Your task to perform on an android device: all mails in gmail Image 0: 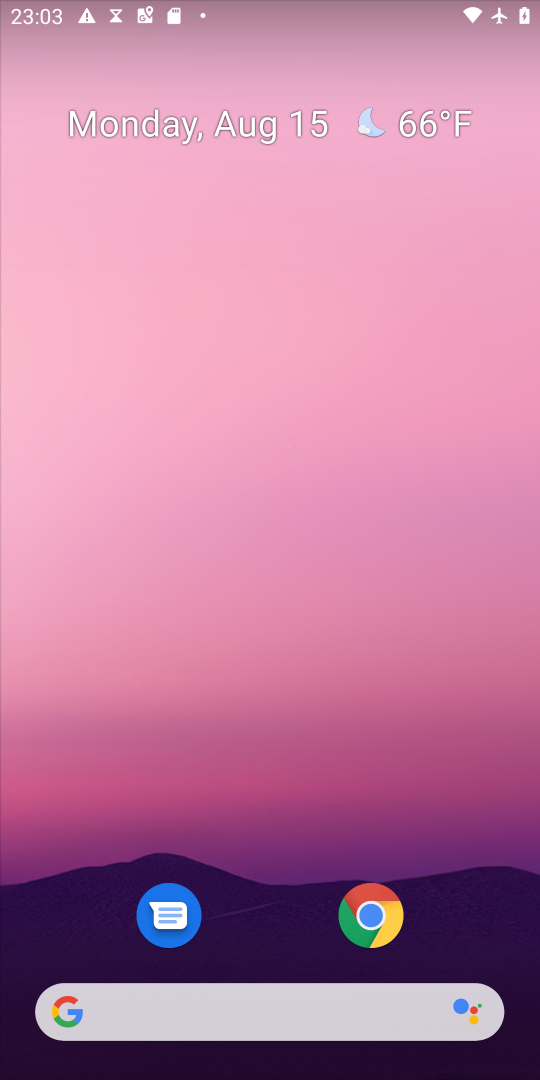
Step 0: drag from (266, 931) to (370, 7)
Your task to perform on an android device: all mails in gmail Image 1: 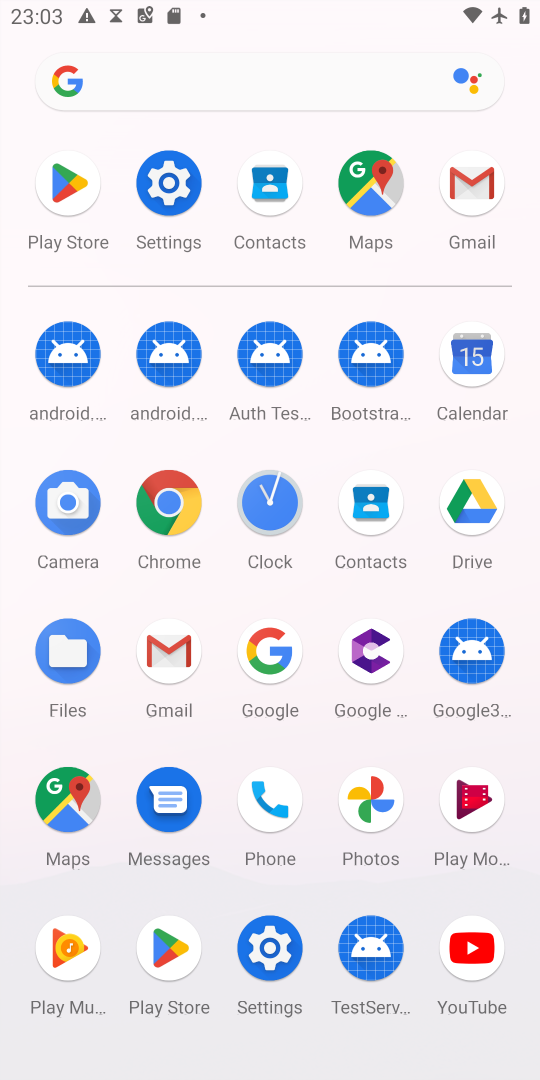
Step 1: click (460, 186)
Your task to perform on an android device: all mails in gmail Image 2: 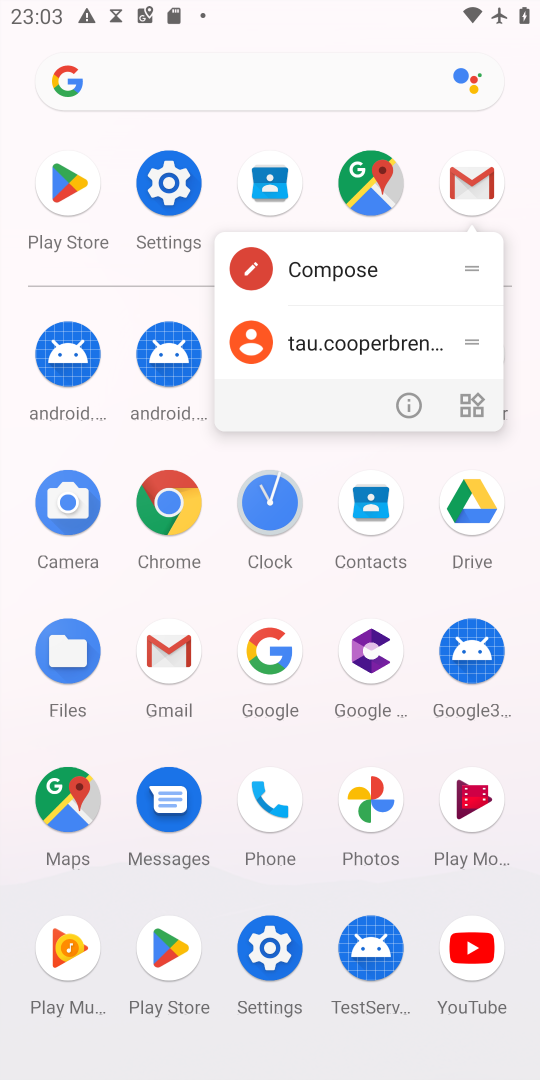
Step 2: click (460, 186)
Your task to perform on an android device: all mails in gmail Image 3: 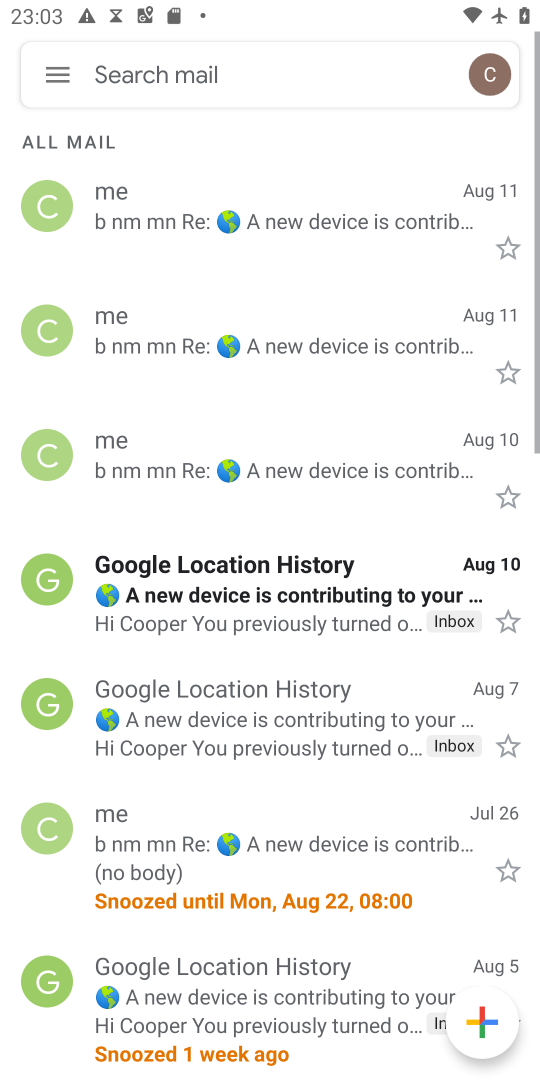
Step 3: click (38, 71)
Your task to perform on an android device: all mails in gmail Image 4: 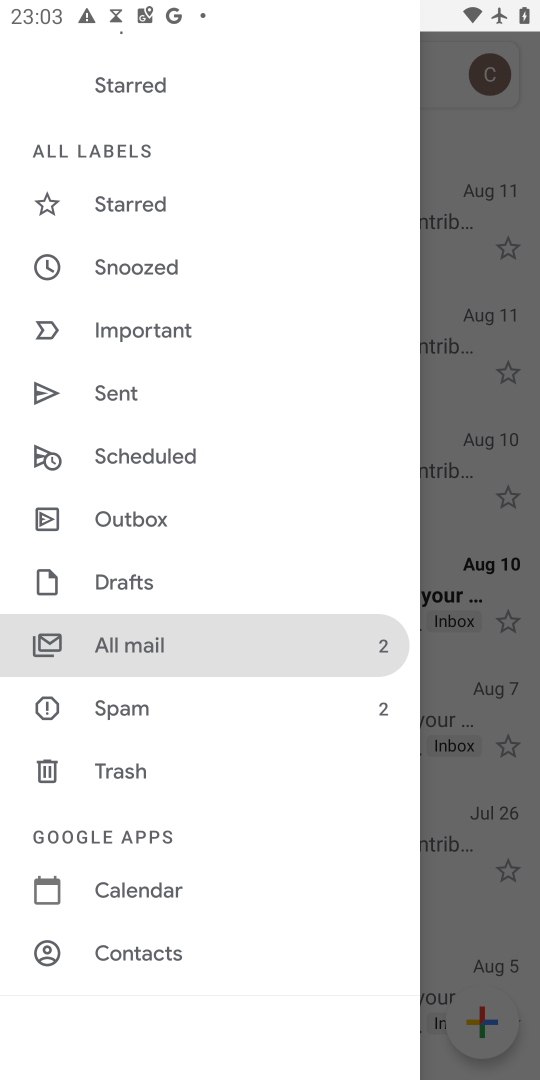
Step 4: click (172, 656)
Your task to perform on an android device: all mails in gmail Image 5: 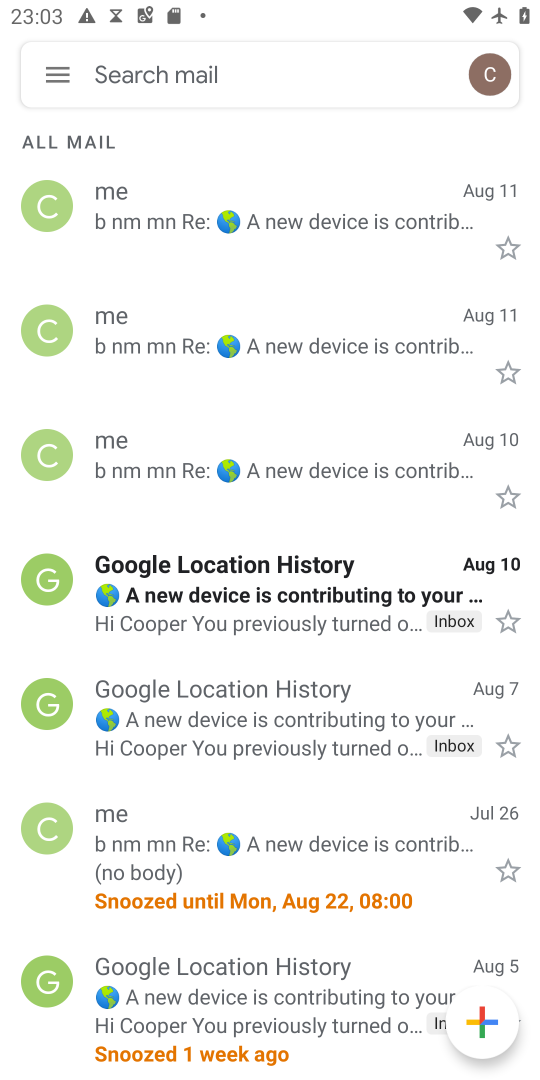
Step 5: task complete